Your task to perform on an android device: toggle translation in the chrome app Image 0: 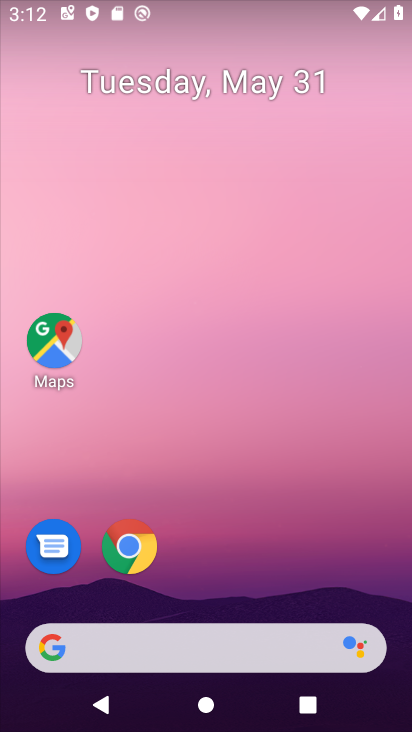
Step 0: drag from (230, 542) to (229, 429)
Your task to perform on an android device: toggle translation in the chrome app Image 1: 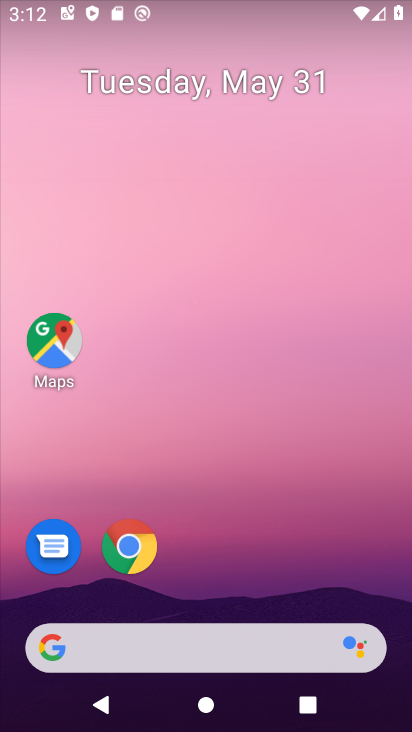
Step 1: click (134, 545)
Your task to perform on an android device: toggle translation in the chrome app Image 2: 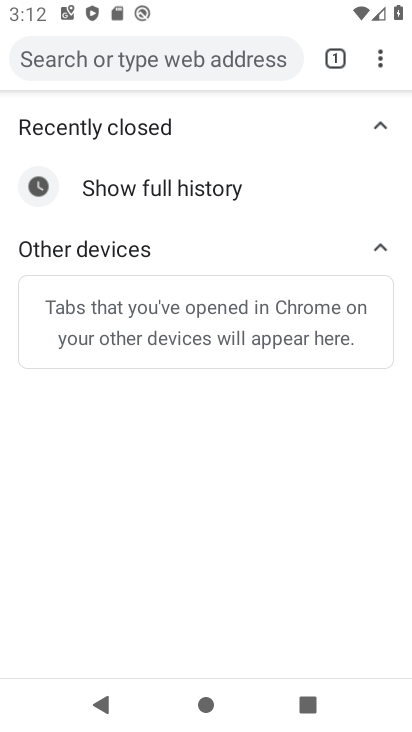
Step 2: click (376, 64)
Your task to perform on an android device: toggle translation in the chrome app Image 3: 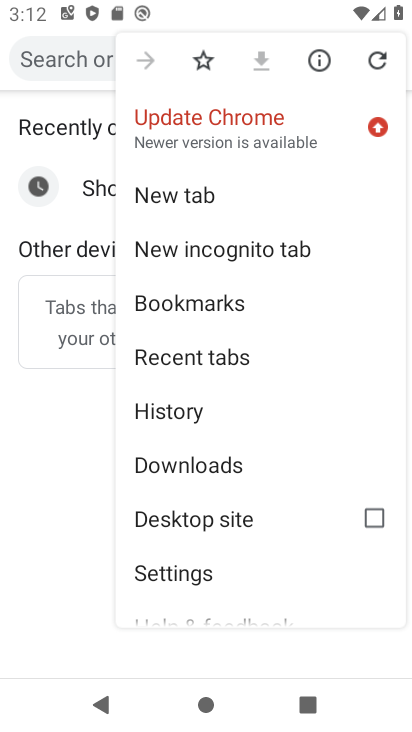
Step 3: click (206, 563)
Your task to perform on an android device: toggle translation in the chrome app Image 4: 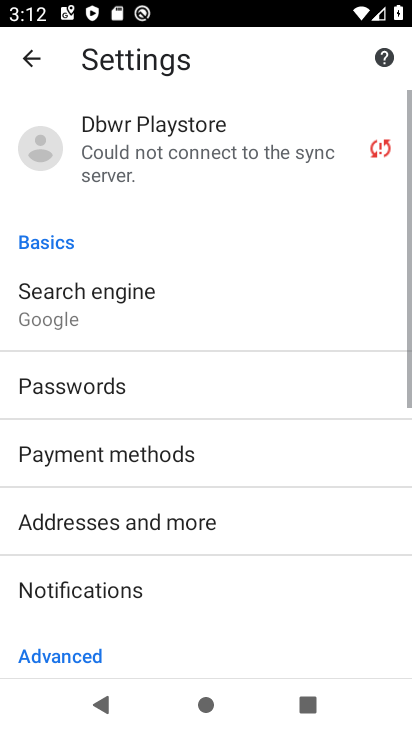
Step 4: drag from (228, 595) to (315, 187)
Your task to perform on an android device: toggle translation in the chrome app Image 5: 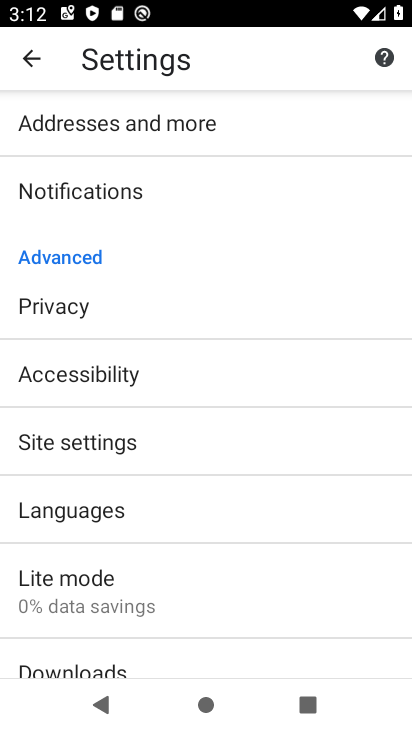
Step 5: click (250, 496)
Your task to perform on an android device: toggle translation in the chrome app Image 6: 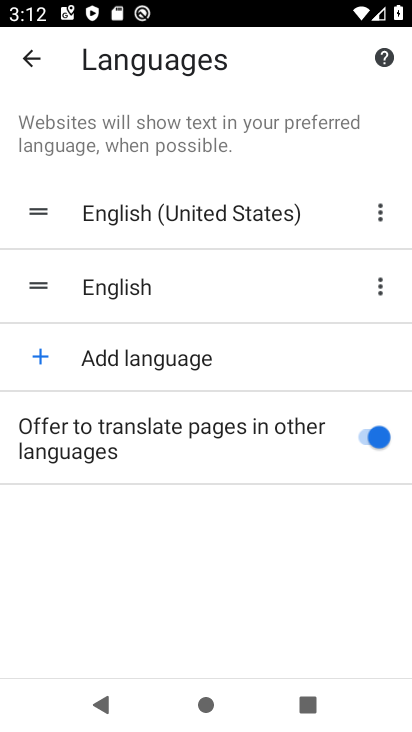
Step 6: click (368, 427)
Your task to perform on an android device: toggle translation in the chrome app Image 7: 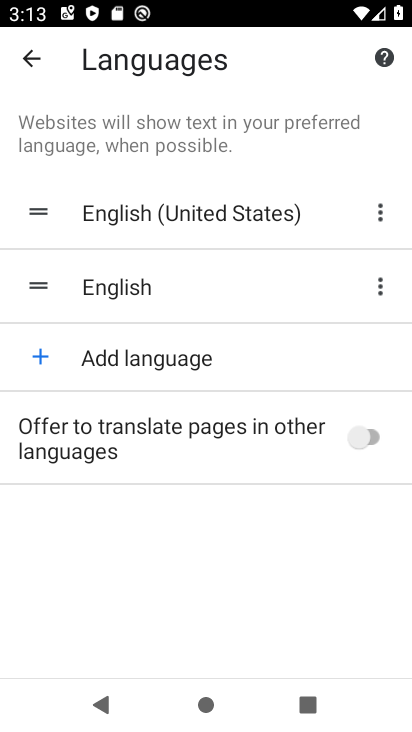
Step 7: task complete